Your task to perform on an android device: Open Chrome and go to the settings page Image 0: 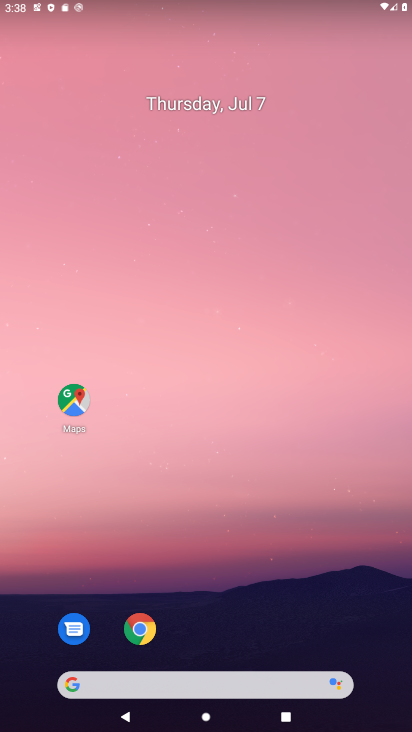
Step 0: drag from (262, 634) to (286, 302)
Your task to perform on an android device: Open Chrome and go to the settings page Image 1: 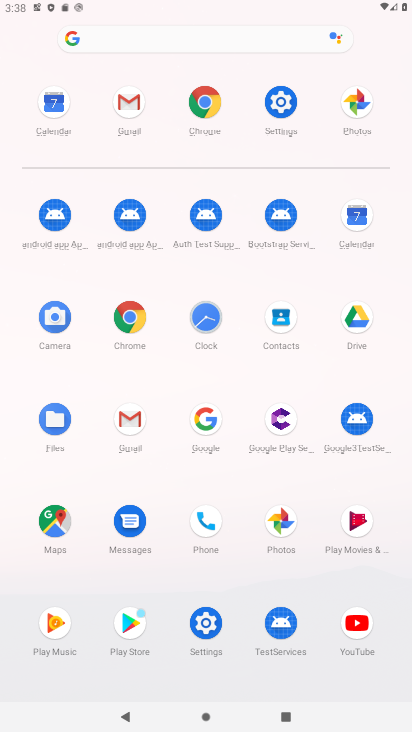
Step 1: click (192, 89)
Your task to perform on an android device: Open Chrome and go to the settings page Image 2: 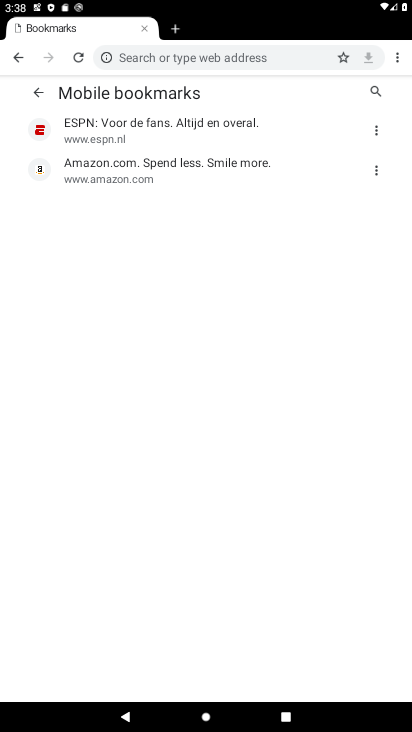
Step 2: click (394, 53)
Your task to perform on an android device: Open Chrome and go to the settings page Image 3: 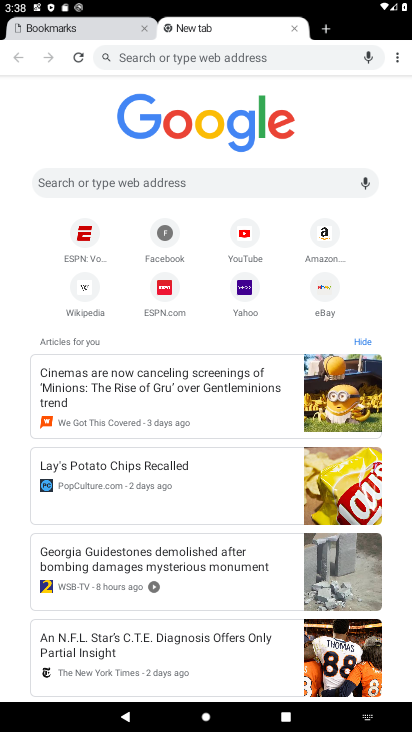
Step 3: click (393, 47)
Your task to perform on an android device: Open Chrome and go to the settings page Image 4: 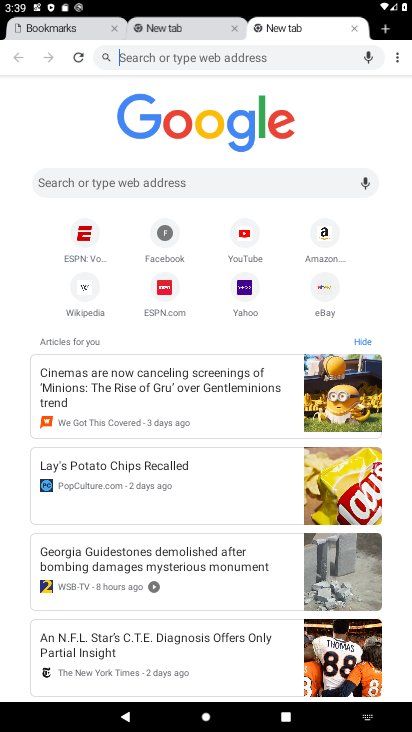
Step 4: click (402, 56)
Your task to perform on an android device: Open Chrome and go to the settings page Image 5: 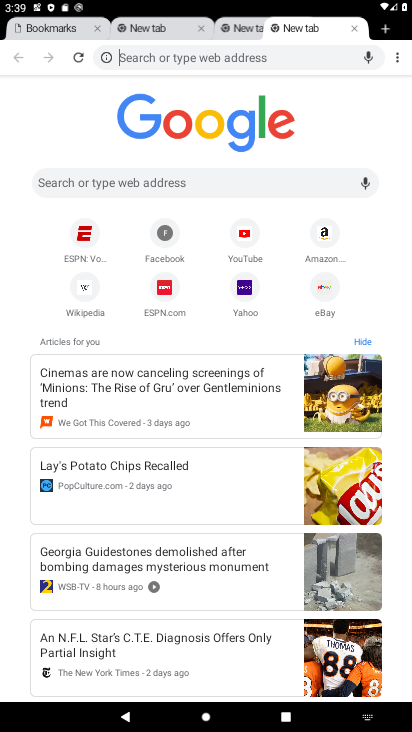
Step 5: click (400, 56)
Your task to perform on an android device: Open Chrome and go to the settings page Image 6: 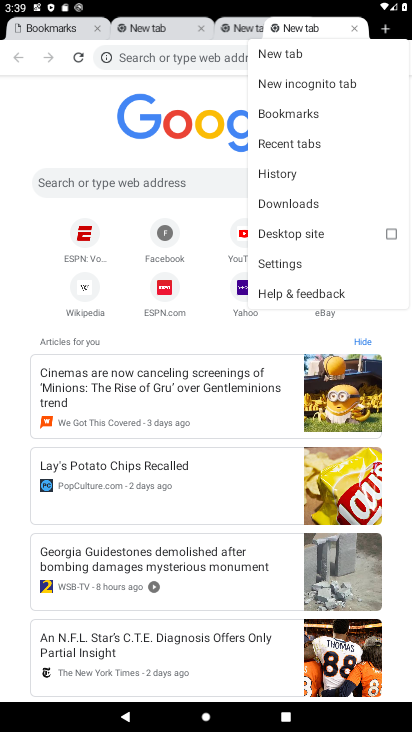
Step 6: click (267, 254)
Your task to perform on an android device: Open Chrome and go to the settings page Image 7: 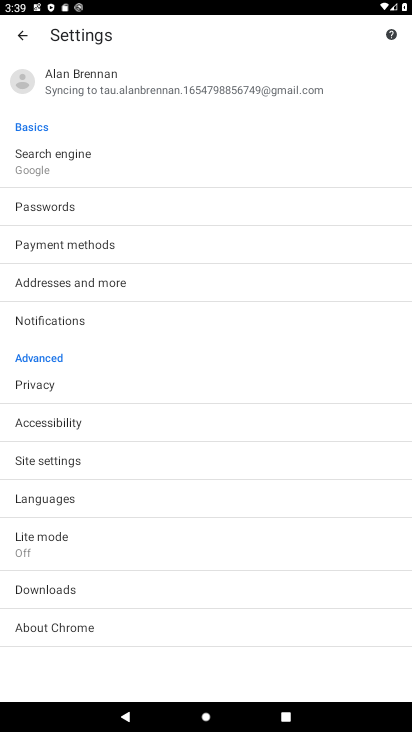
Step 7: task complete